Your task to perform on an android device: Add bose soundlink to the cart on newegg Image 0: 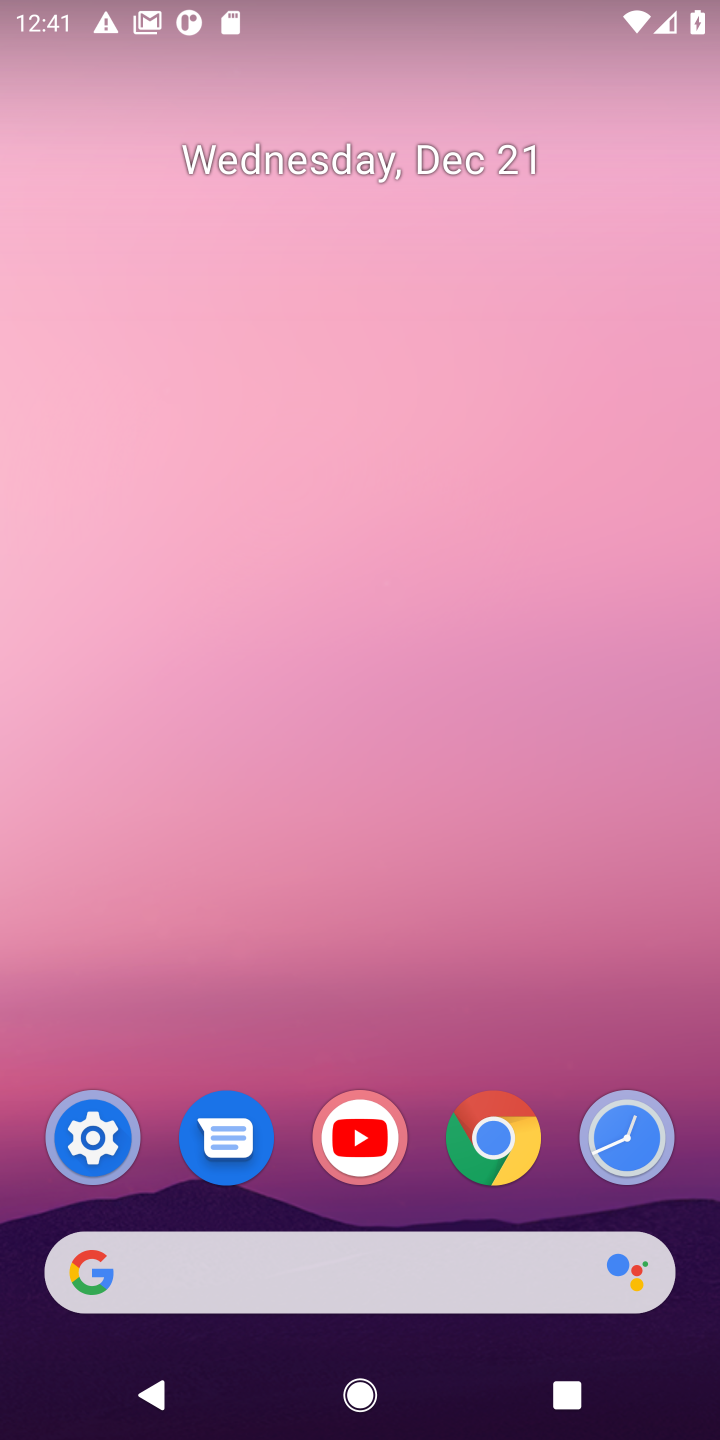
Step 0: click (477, 1184)
Your task to perform on an android device: Add bose soundlink to the cart on newegg Image 1: 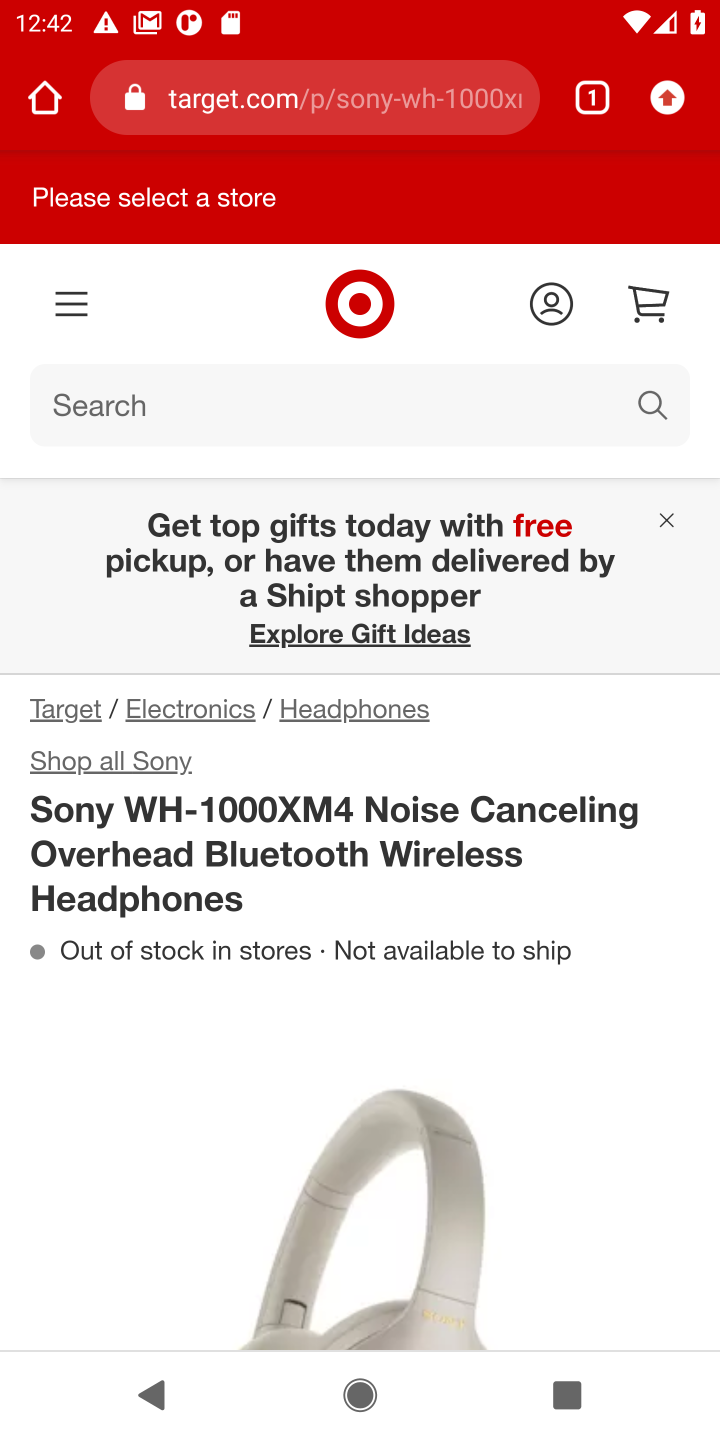
Step 1: click (444, 77)
Your task to perform on an android device: Add bose soundlink to the cart on newegg Image 2: 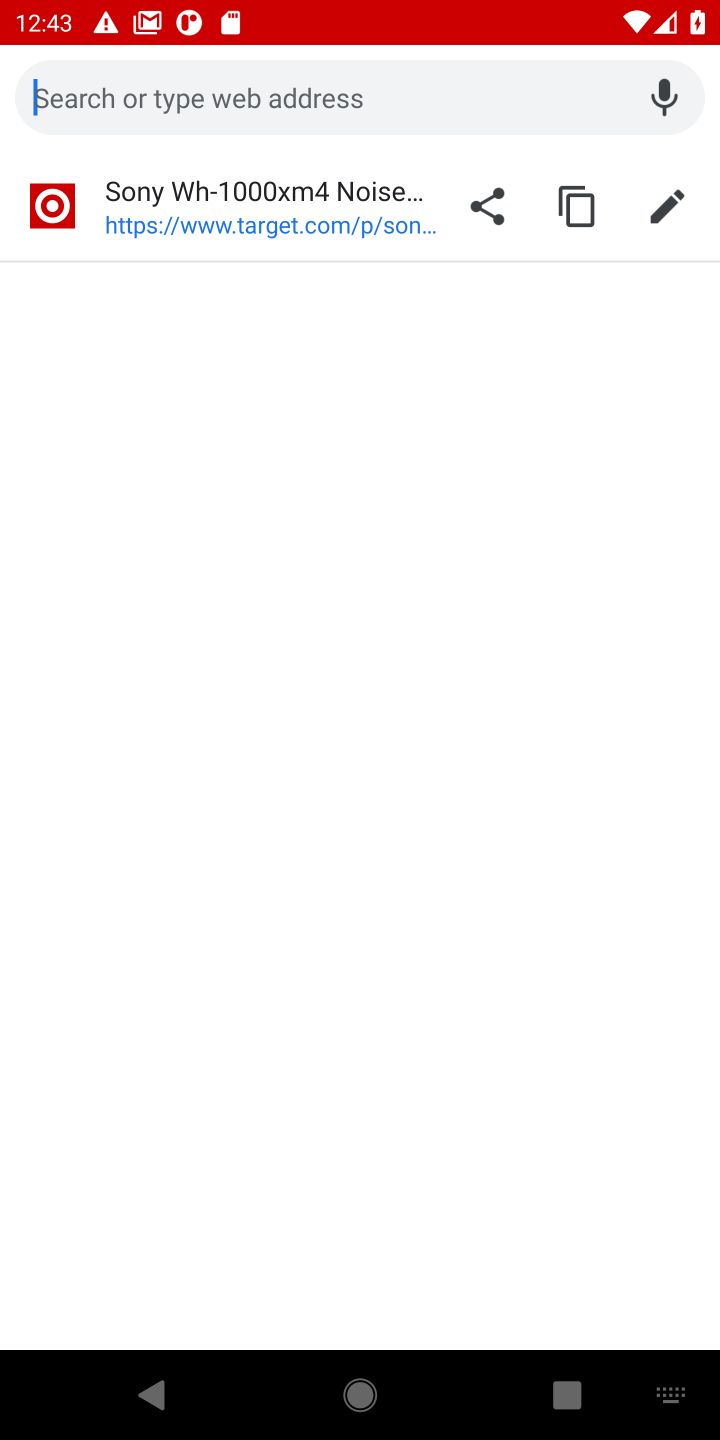
Step 2: type "newegg"
Your task to perform on an android device: Add bose soundlink to the cart on newegg Image 3: 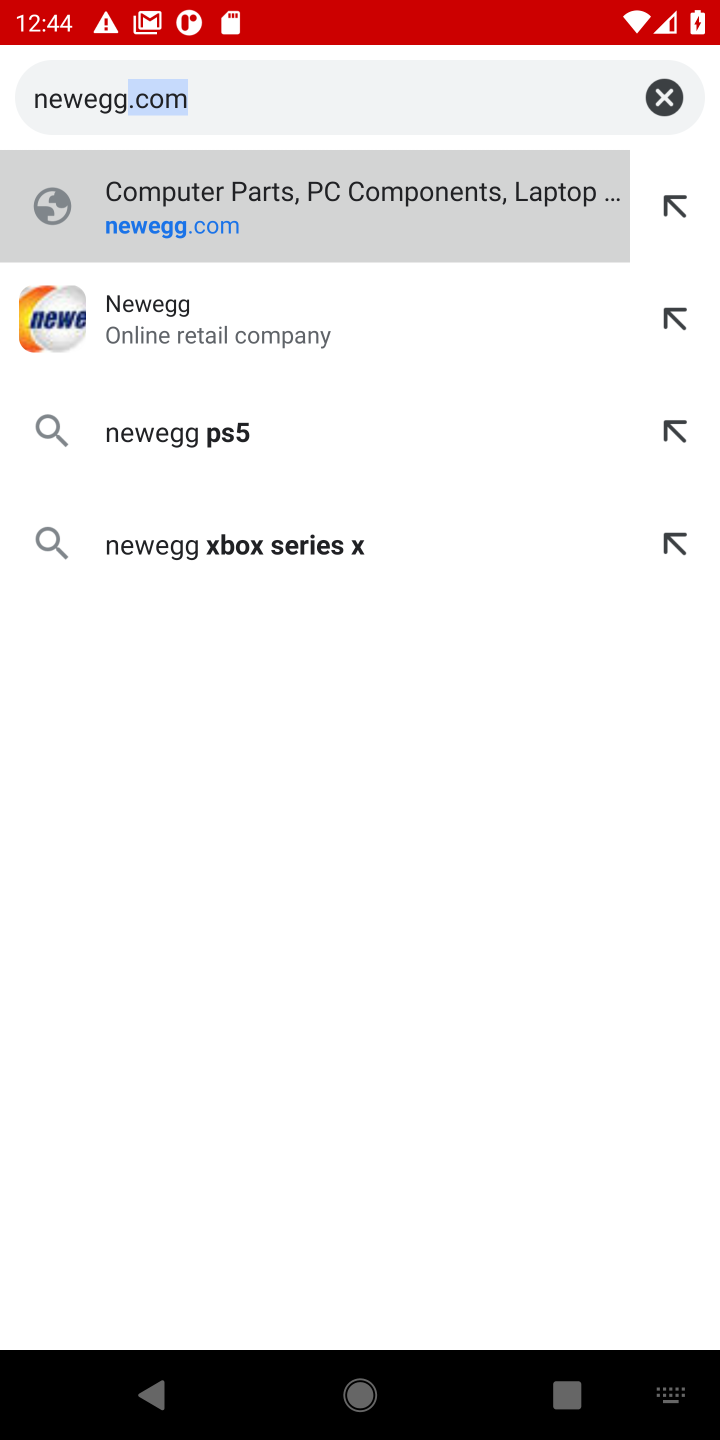
Step 3: click (344, 232)
Your task to perform on an android device: Add bose soundlink to the cart on newegg Image 4: 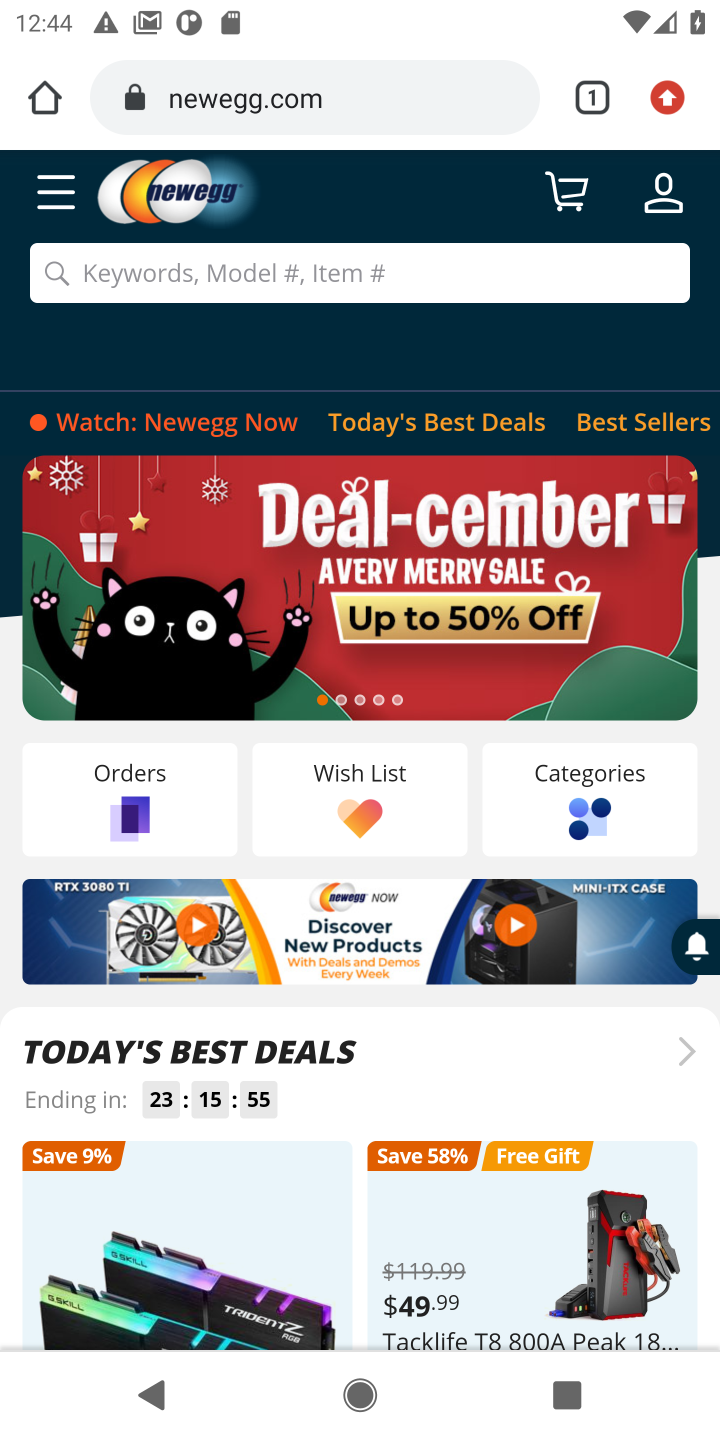
Step 4: click (500, 292)
Your task to perform on an android device: Add bose soundlink to the cart on newegg Image 5: 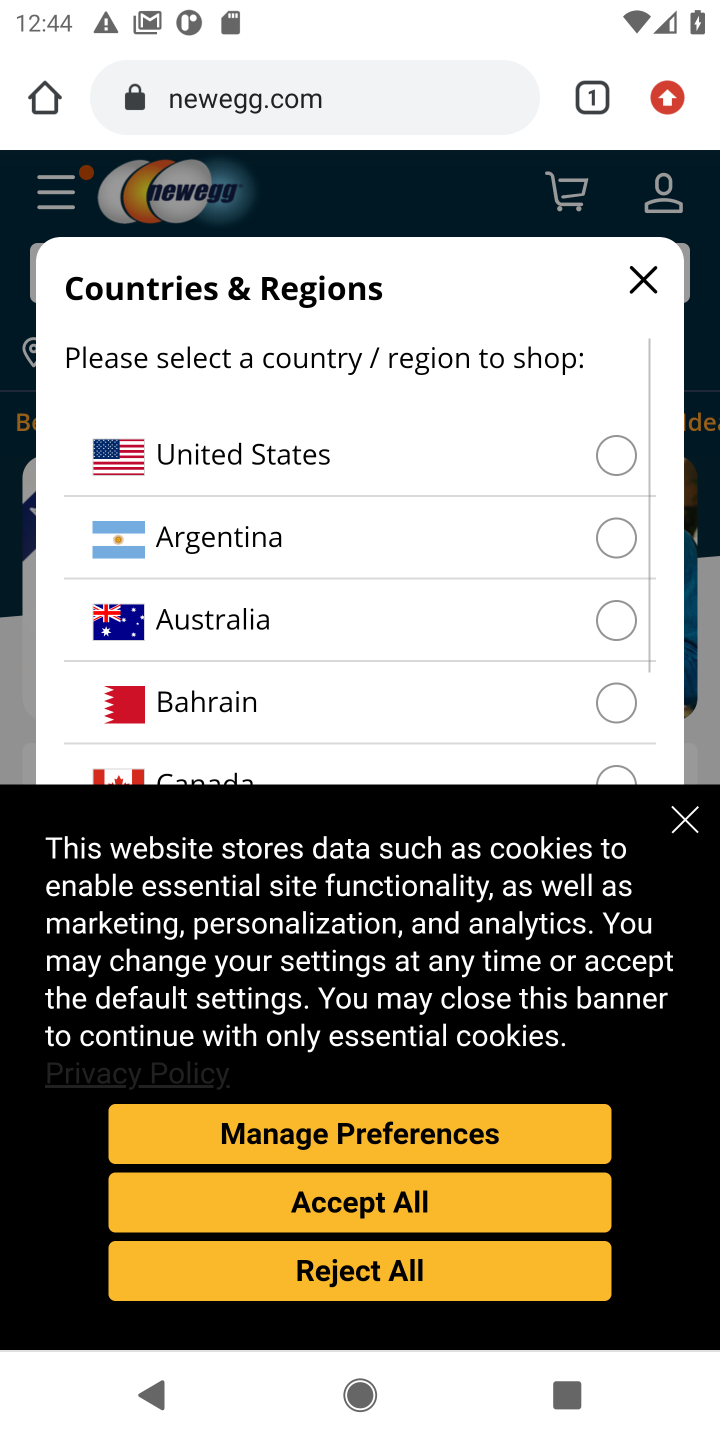
Step 5: type "bose soundlink"
Your task to perform on an android device: Add bose soundlink to the cart on newegg Image 6: 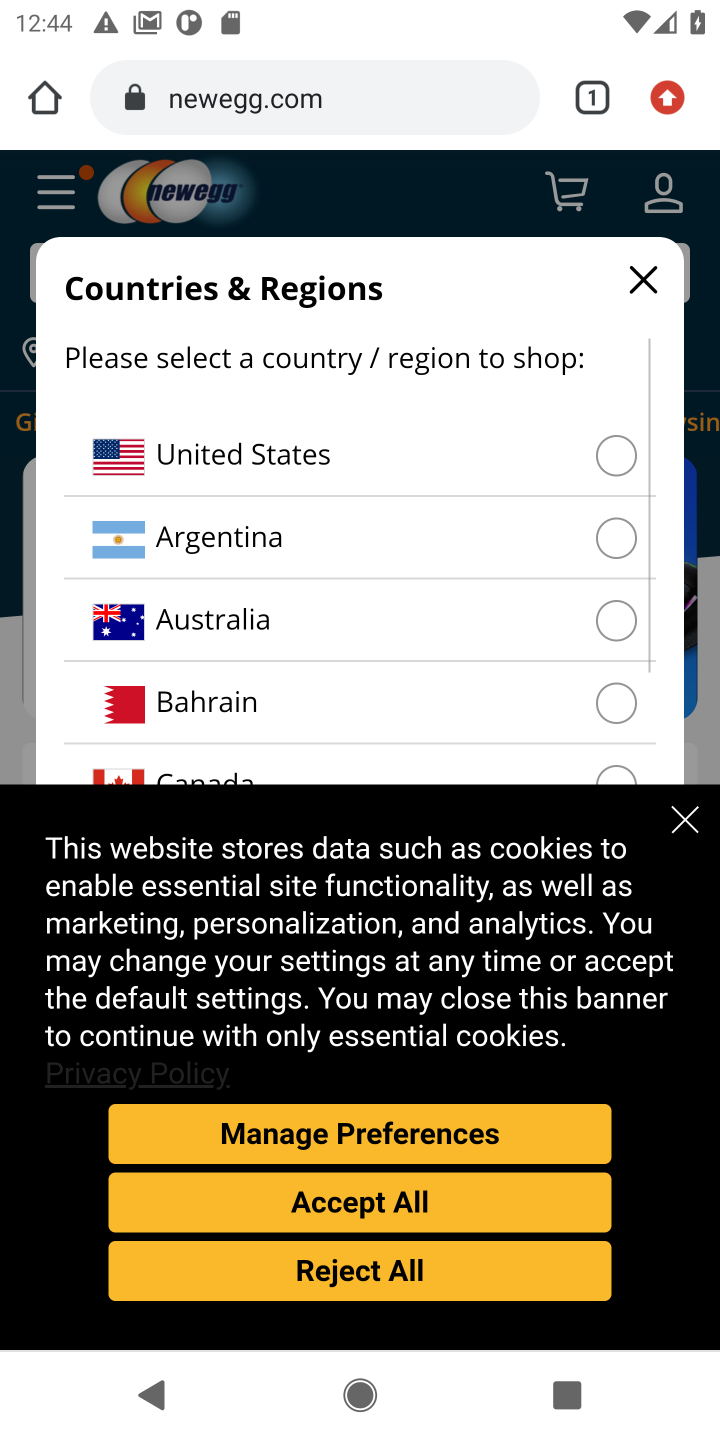
Step 6: task complete